Your task to perform on an android device: Open the calendar and show me this week's events? Image 0: 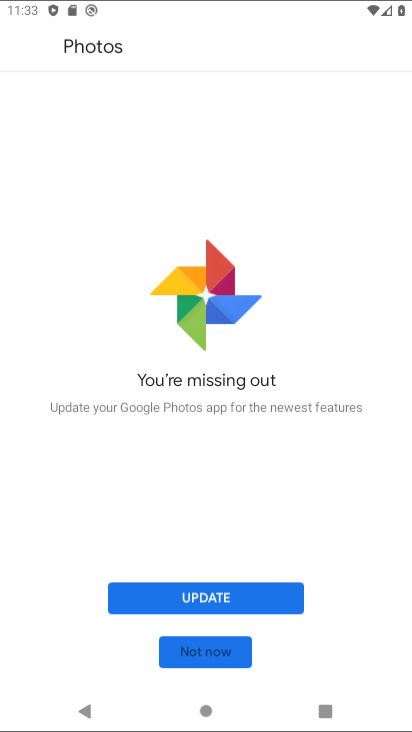
Step 0: press home button
Your task to perform on an android device: Open the calendar and show me this week's events? Image 1: 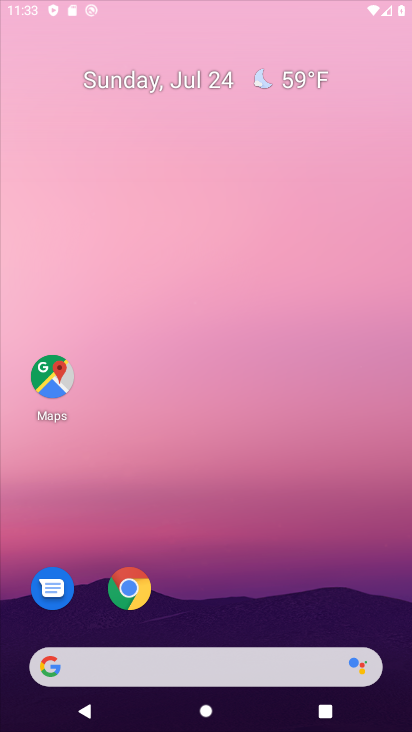
Step 1: drag from (387, 622) to (173, 9)
Your task to perform on an android device: Open the calendar and show me this week's events? Image 2: 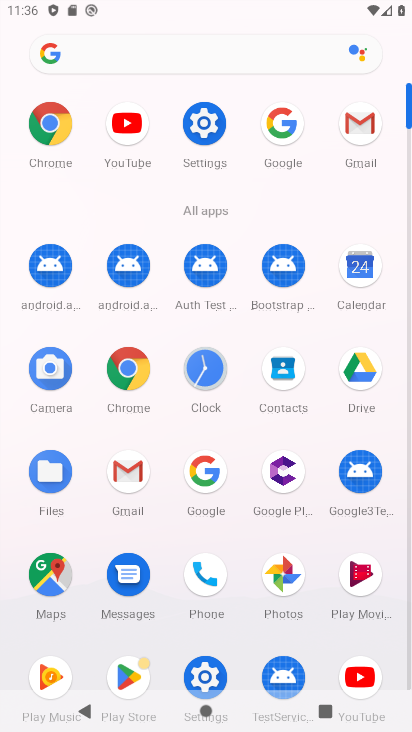
Step 2: click (352, 293)
Your task to perform on an android device: Open the calendar and show me this week's events? Image 3: 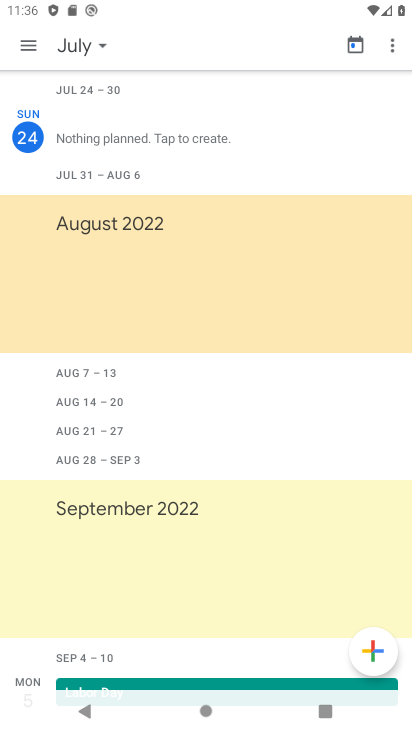
Step 3: task complete